Your task to perform on an android device: Go to location settings Image 0: 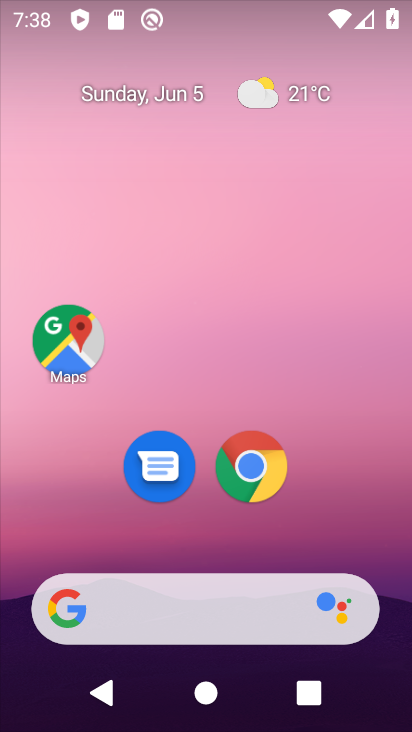
Step 0: drag from (166, 560) to (201, 46)
Your task to perform on an android device: Go to location settings Image 1: 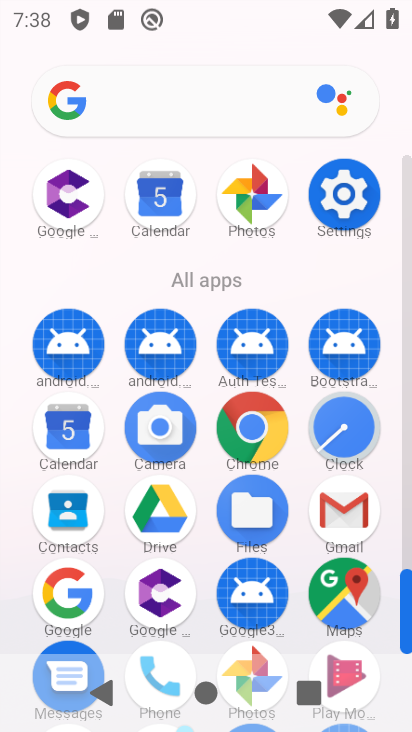
Step 1: click (336, 194)
Your task to perform on an android device: Go to location settings Image 2: 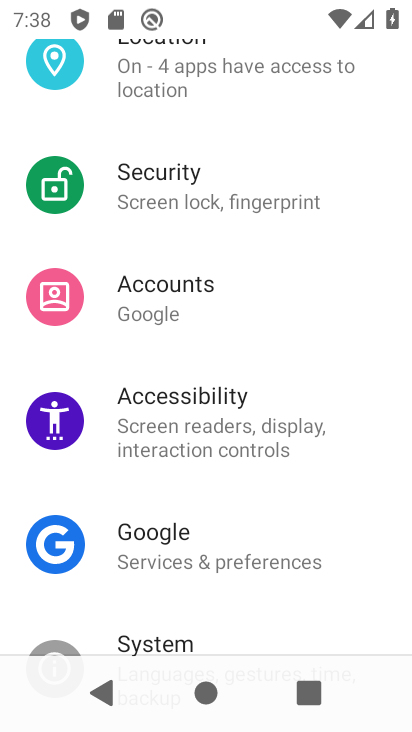
Step 2: drag from (219, 125) to (222, 446)
Your task to perform on an android device: Go to location settings Image 3: 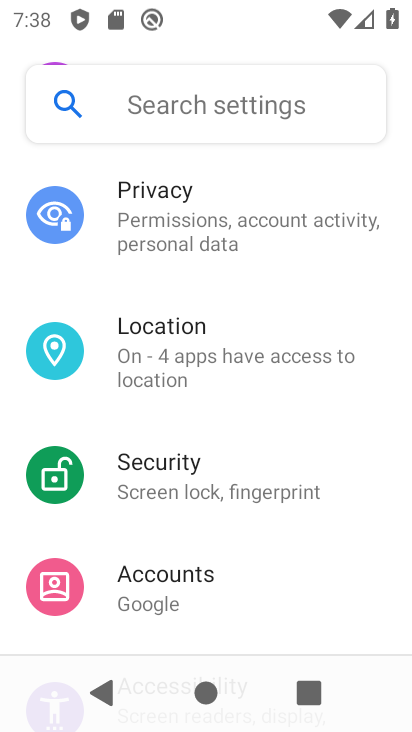
Step 3: click (179, 351)
Your task to perform on an android device: Go to location settings Image 4: 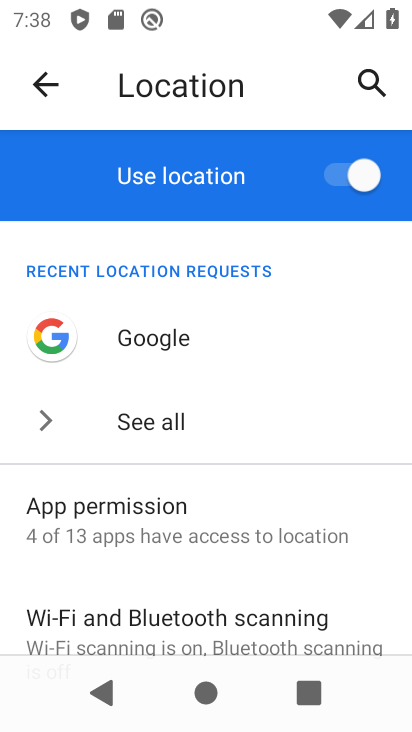
Step 4: task complete